Your task to perform on an android device: Open calendar and show me the third week of next month Image 0: 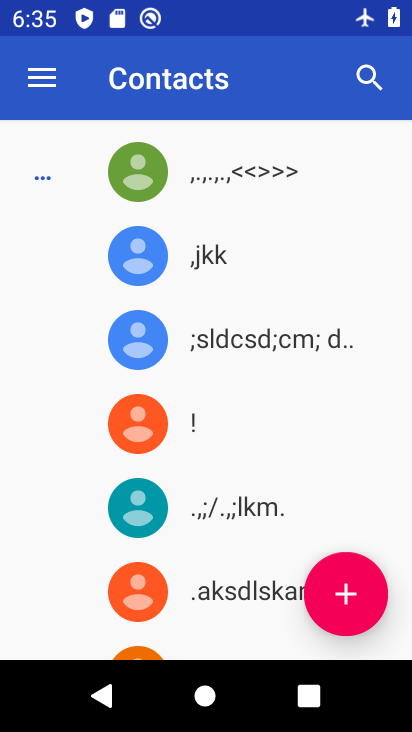
Step 0: press home button
Your task to perform on an android device: Open calendar and show me the third week of next month Image 1: 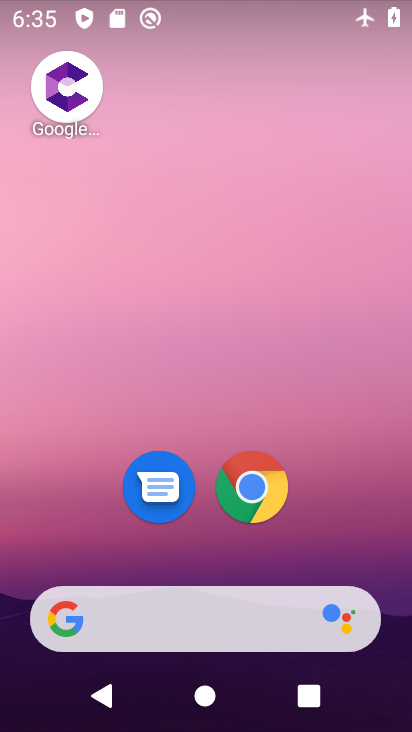
Step 1: drag from (357, 483) to (181, 62)
Your task to perform on an android device: Open calendar and show me the third week of next month Image 2: 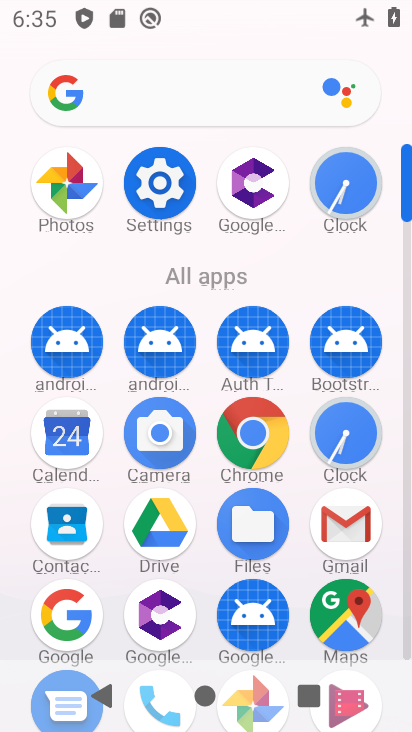
Step 2: click (65, 439)
Your task to perform on an android device: Open calendar and show me the third week of next month Image 3: 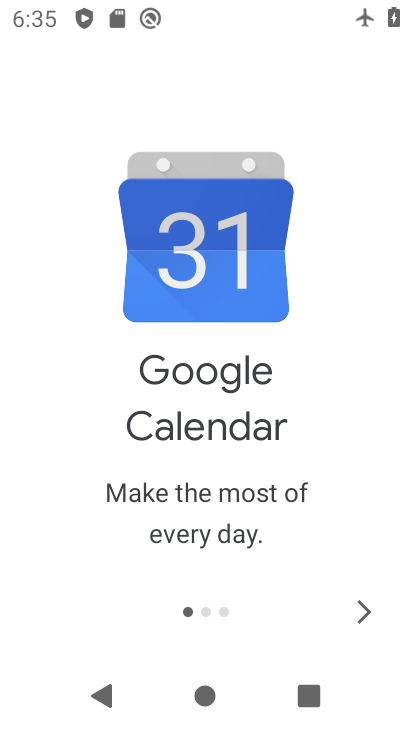
Step 3: click (368, 610)
Your task to perform on an android device: Open calendar and show me the third week of next month Image 4: 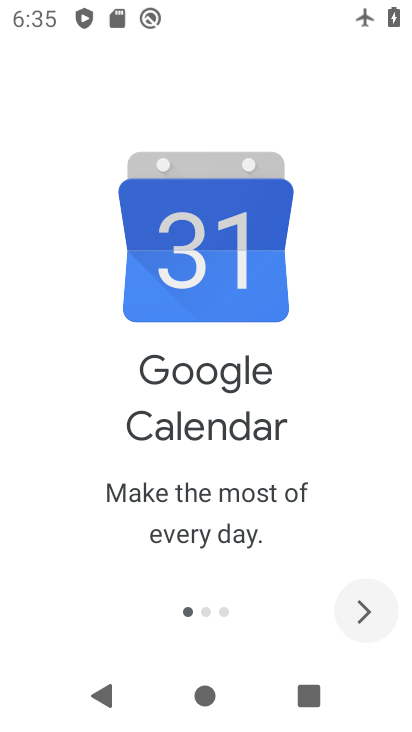
Step 4: click (368, 610)
Your task to perform on an android device: Open calendar and show me the third week of next month Image 5: 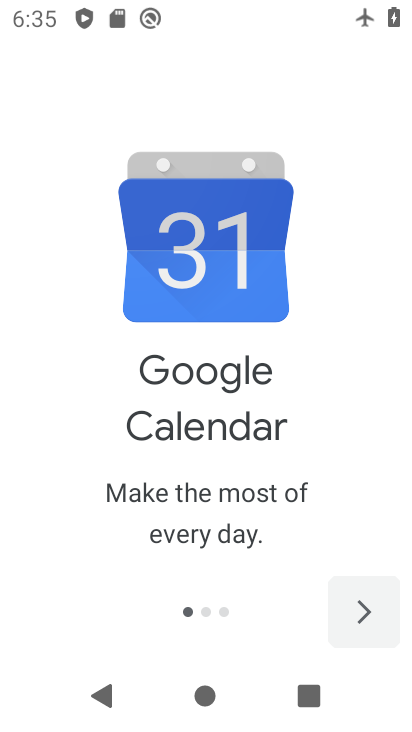
Step 5: click (368, 610)
Your task to perform on an android device: Open calendar and show me the third week of next month Image 6: 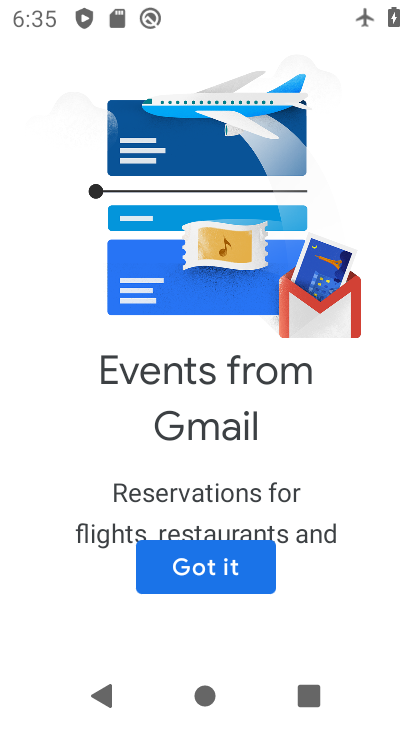
Step 6: click (215, 568)
Your task to perform on an android device: Open calendar and show me the third week of next month Image 7: 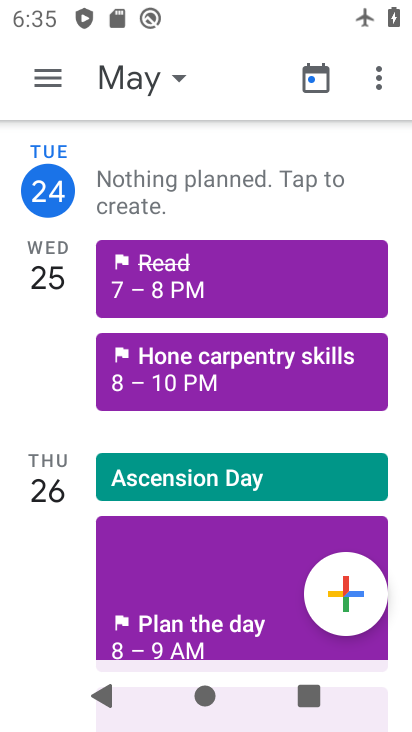
Step 7: click (43, 82)
Your task to perform on an android device: Open calendar and show me the third week of next month Image 8: 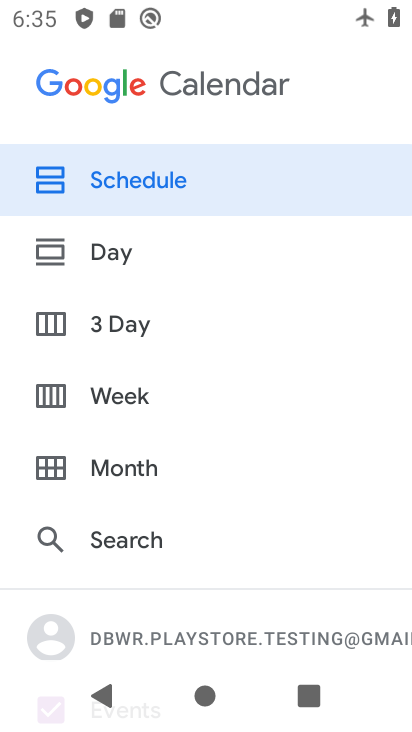
Step 8: click (125, 390)
Your task to perform on an android device: Open calendar and show me the third week of next month Image 9: 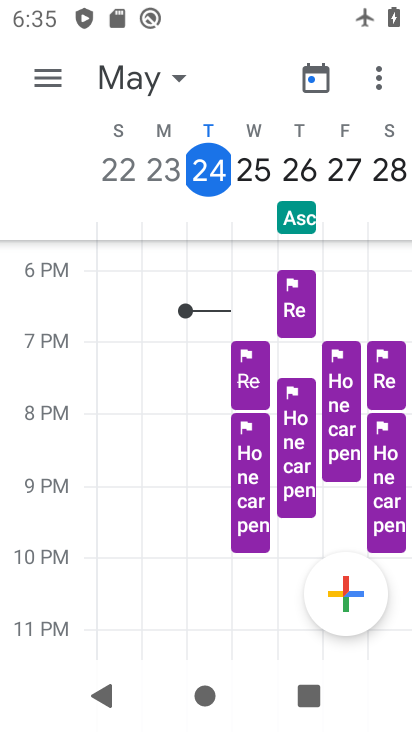
Step 9: click (173, 81)
Your task to perform on an android device: Open calendar and show me the third week of next month Image 10: 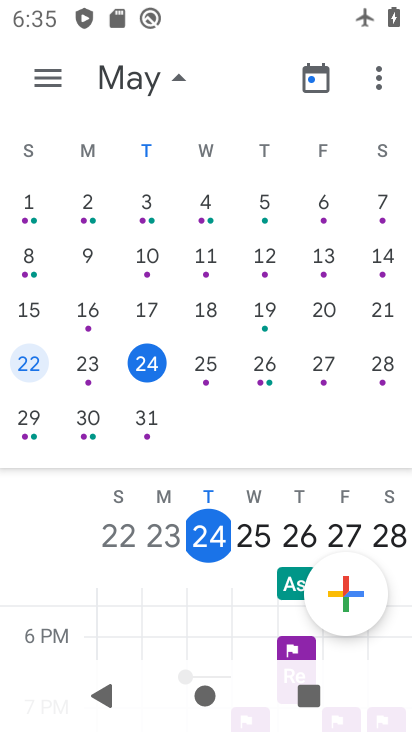
Step 10: drag from (383, 251) to (3, 173)
Your task to perform on an android device: Open calendar and show me the third week of next month Image 11: 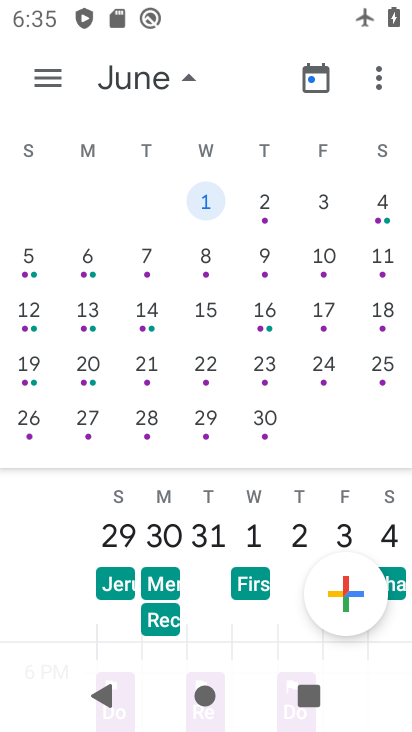
Step 11: click (204, 296)
Your task to perform on an android device: Open calendar and show me the third week of next month Image 12: 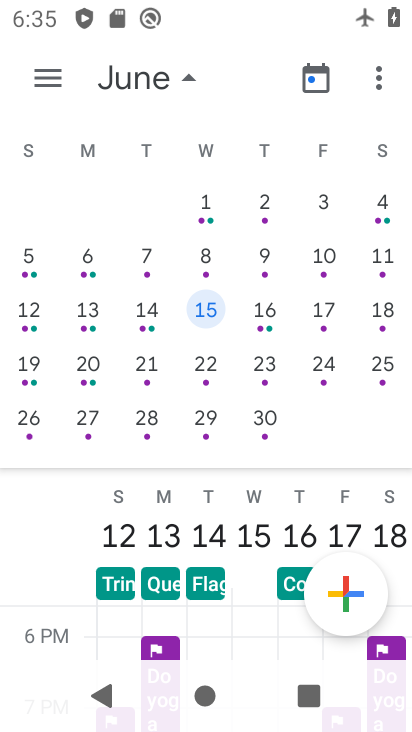
Step 12: task complete